Your task to perform on an android device: Search for Italian restaurants on Maps Image 0: 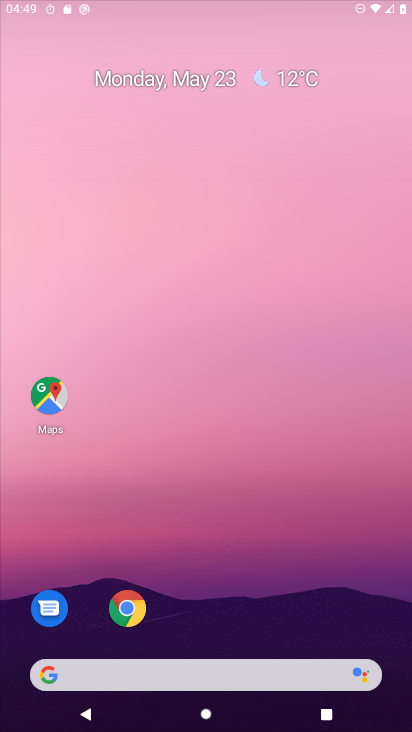
Step 0: drag from (296, 582) to (235, 7)
Your task to perform on an android device: Search for Italian restaurants on Maps Image 1: 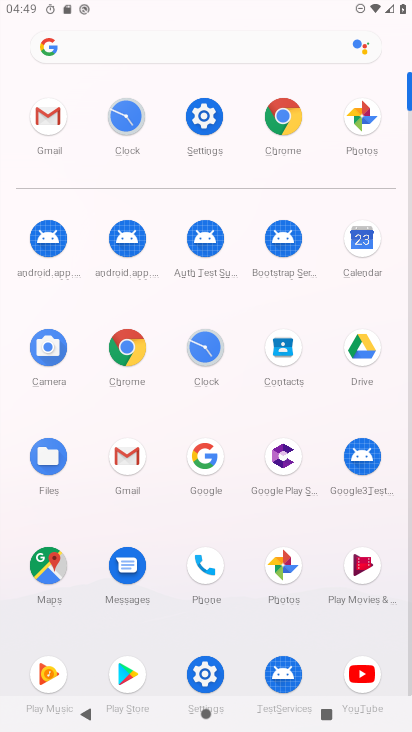
Step 1: click (45, 562)
Your task to perform on an android device: Search for Italian restaurants on Maps Image 2: 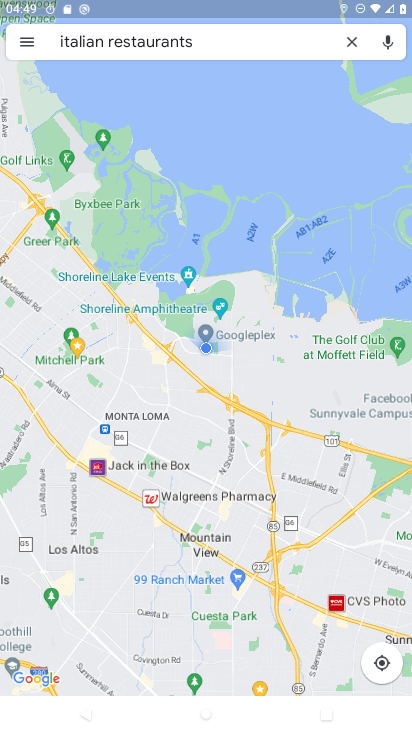
Step 2: task complete